Your task to perform on an android device: set the timer Image 0: 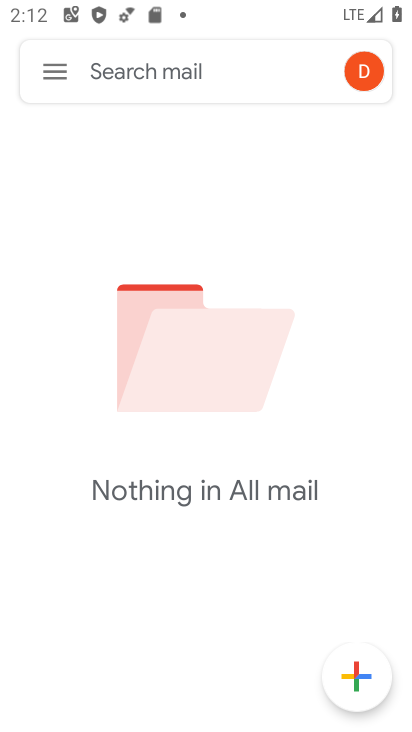
Step 0: press home button
Your task to perform on an android device: set the timer Image 1: 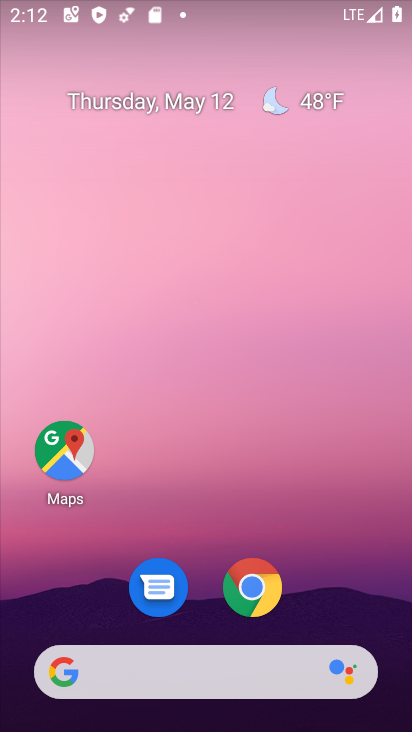
Step 1: drag from (229, 638) to (220, 175)
Your task to perform on an android device: set the timer Image 2: 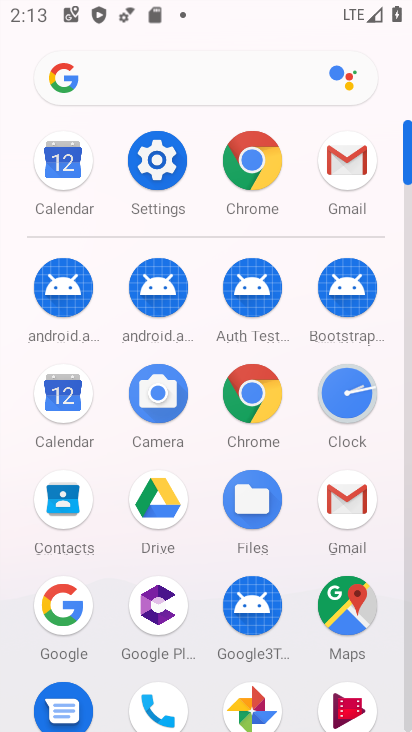
Step 2: click (348, 406)
Your task to perform on an android device: set the timer Image 3: 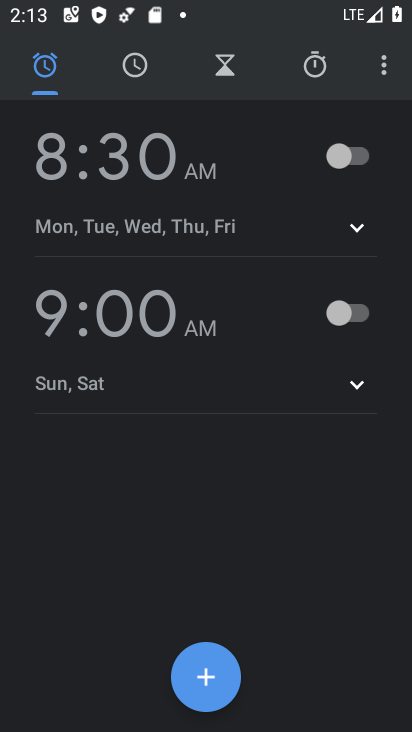
Step 3: click (226, 78)
Your task to perform on an android device: set the timer Image 4: 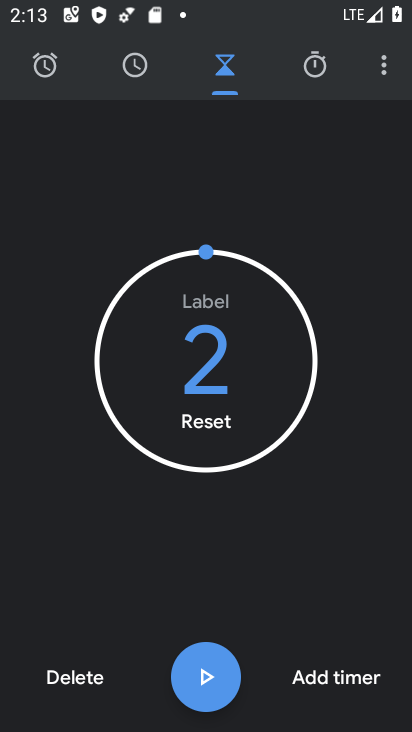
Step 4: click (196, 682)
Your task to perform on an android device: set the timer Image 5: 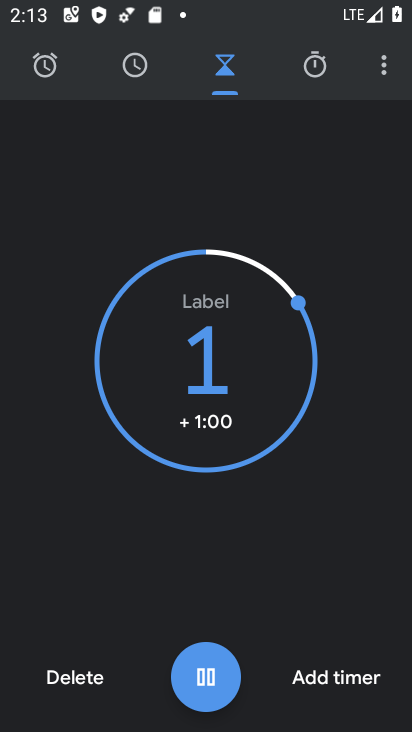
Step 5: task complete